Your task to perform on an android device: Open wifi settings Image 0: 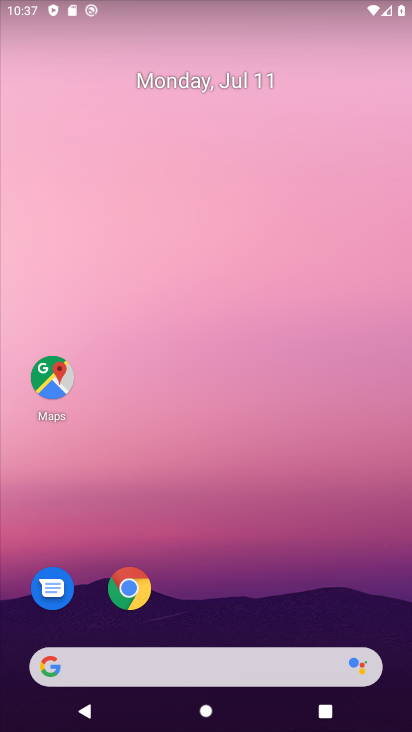
Step 0: drag from (201, 550) to (214, 92)
Your task to perform on an android device: Open wifi settings Image 1: 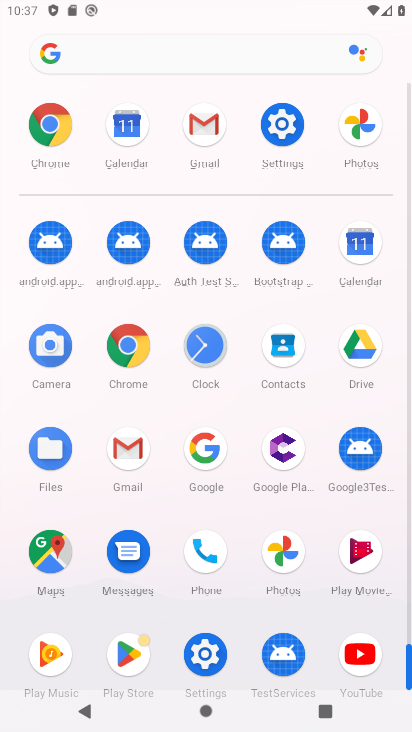
Step 1: click (283, 120)
Your task to perform on an android device: Open wifi settings Image 2: 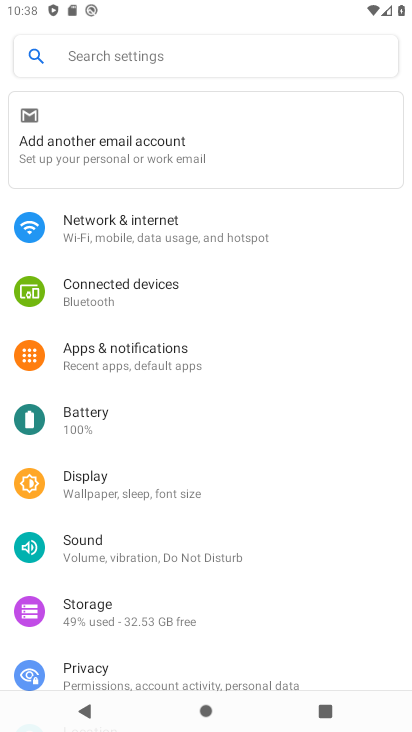
Step 2: click (122, 219)
Your task to perform on an android device: Open wifi settings Image 3: 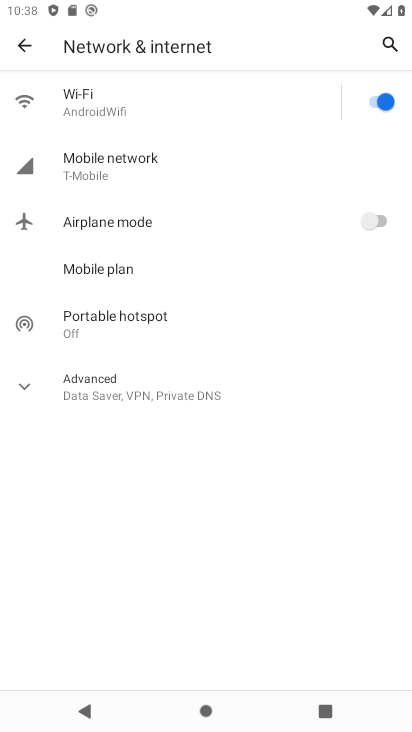
Step 3: click (164, 108)
Your task to perform on an android device: Open wifi settings Image 4: 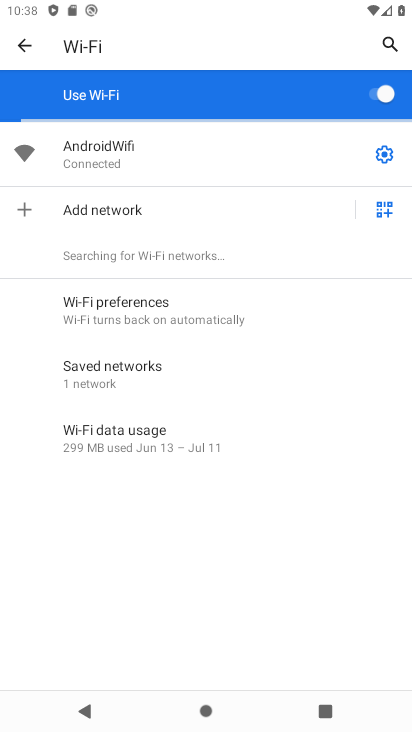
Step 4: task complete